Your task to perform on an android device: Search for pizza restaurants on Maps Image 0: 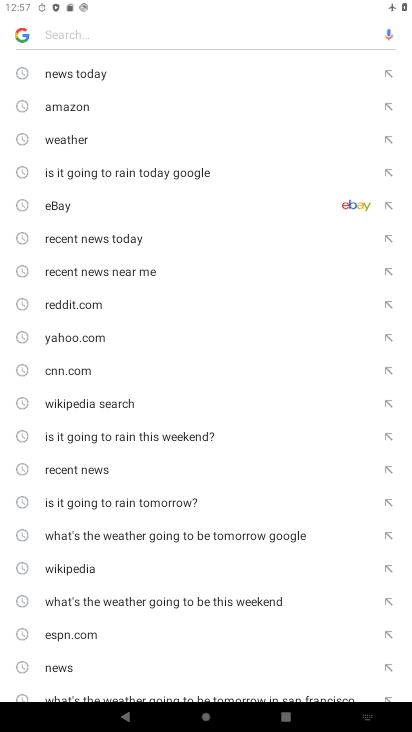
Step 0: press home button
Your task to perform on an android device: Search for pizza restaurants on Maps Image 1: 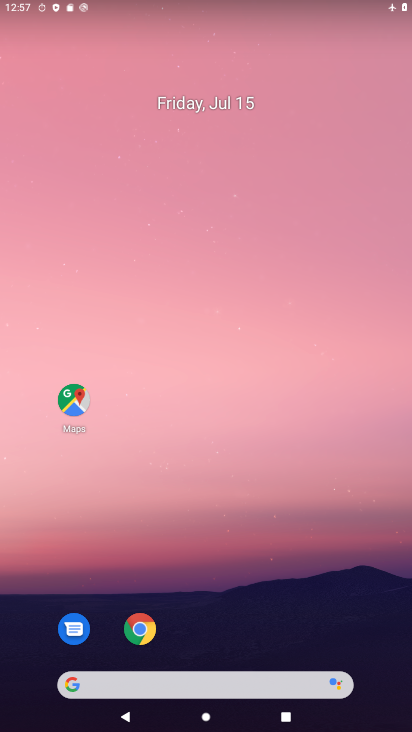
Step 1: click (69, 401)
Your task to perform on an android device: Search for pizza restaurants on Maps Image 2: 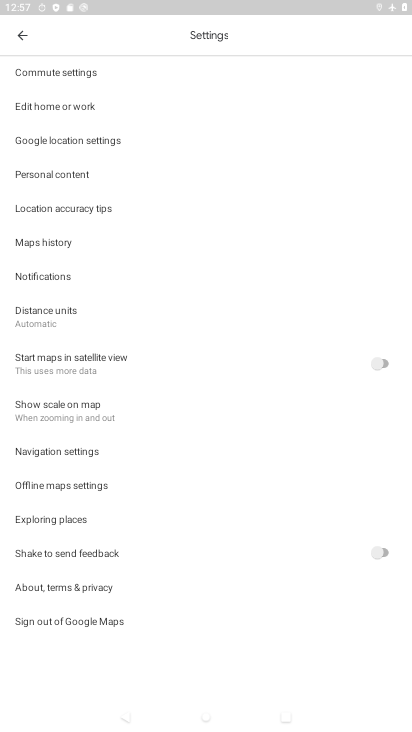
Step 2: click (21, 39)
Your task to perform on an android device: Search for pizza restaurants on Maps Image 3: 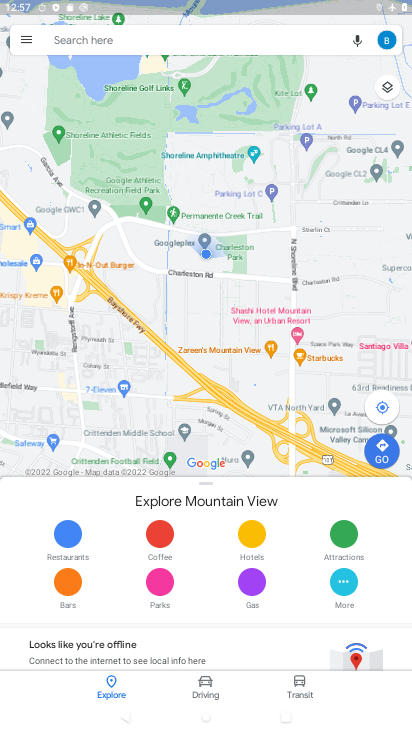
Step 3: click (132, 37)
Your task to perform on an android device: Search for pizza restaurants on Maps Image 4: 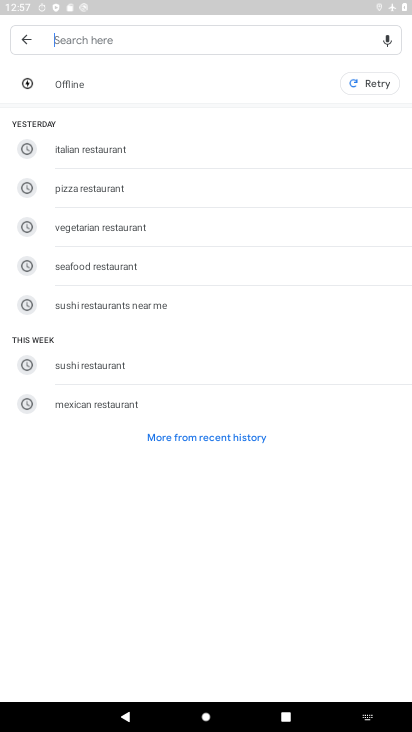
Step 4: type "Pizza restaurants"
Your task to perform on an android device: Search for pizza restaurants on Maps Image 5: 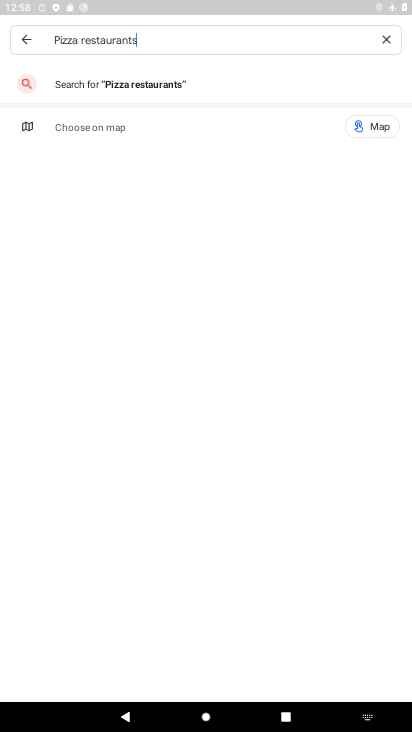
Step 5: click (162, 78)
Your task to perform on an android device: Search for pizza restaurants on Maps Image 6: 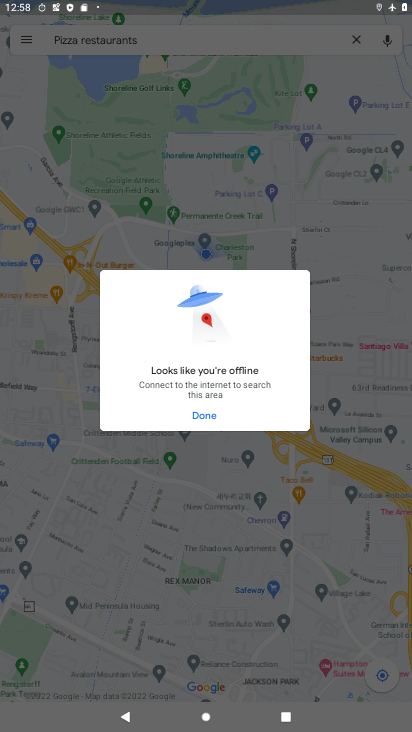
Step 6: click (228, 423)
Your task to perform on an android device: Search for pizza restaurants on Maps Image 7: 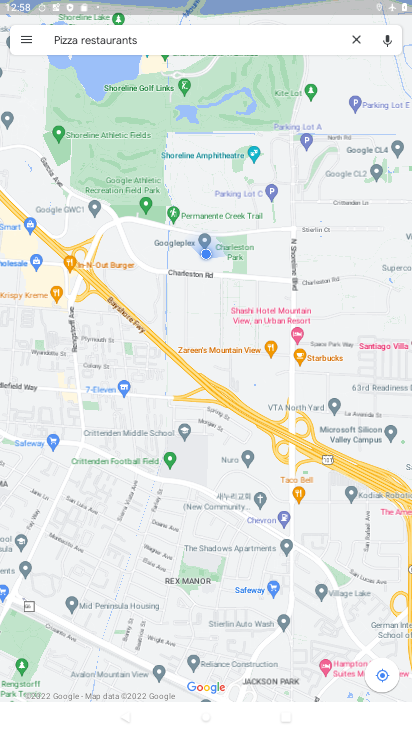
Step 7: task complete